Your task to perform on an android device: Delete the most recent email in my inbox Image 0: 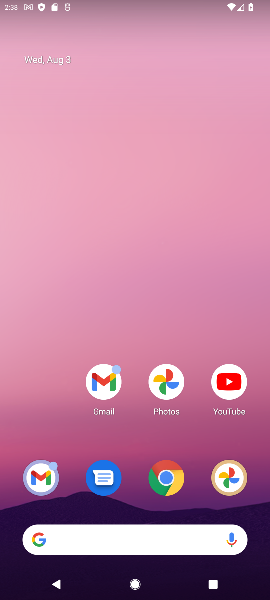
Step 0: drag from (125, 459) to (146, 139)
Your task to perform on an android device: Delete the most recent email in my inbox Image 1: 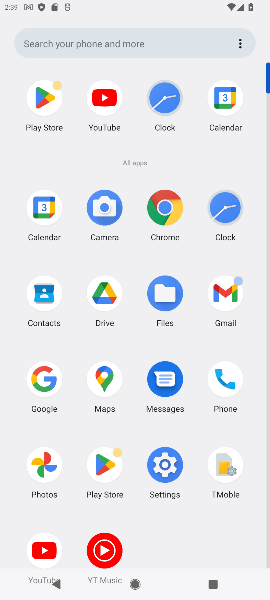
Step 1: click (231, 304)
Your task to perform on an android device: Delete the most recent email in my inbox Image 2: 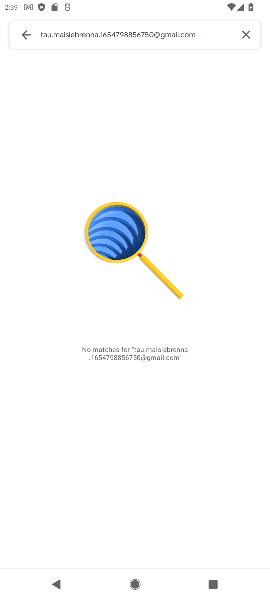
Step 2: press back button
Your task to perform on an android device: Delete the most recent email in my inbox Image 3: 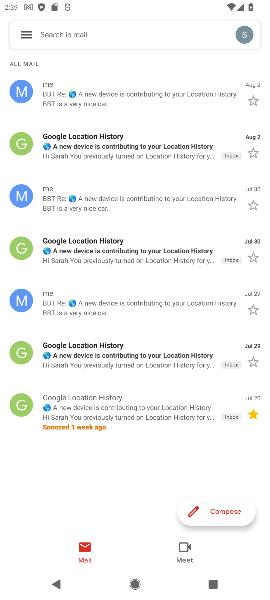
Step 3: click (211, 99)
Your task to perform on an android device: Delete the most recent email in my inbox Image 4: 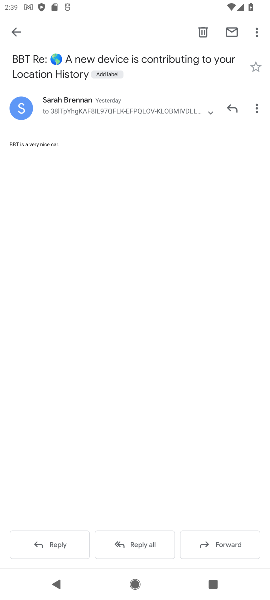
Step 4: click (203, 32)
Your task to perform on an android device: Delete the most recent email in my inbox Image 5: 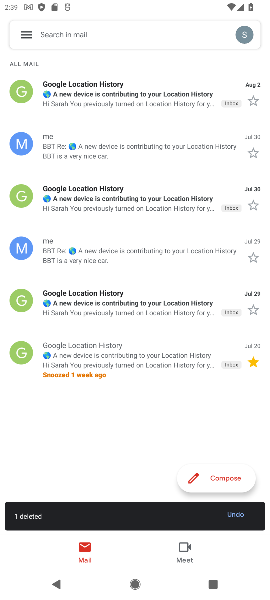
Step 5: task complete